Your task to perform on an android device: Play the last video I watched on Youtube Image 0: 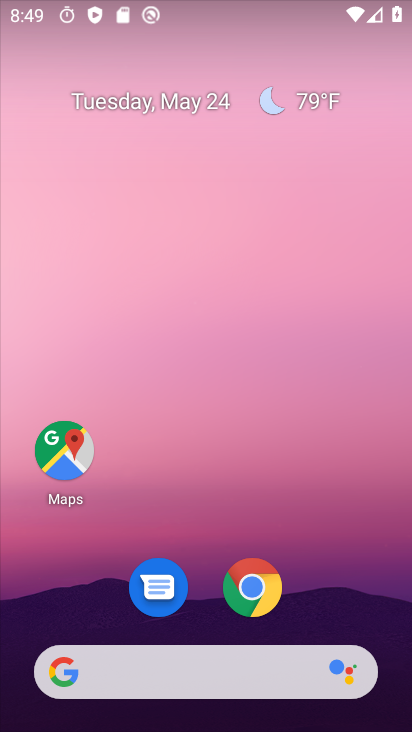
Step 0: drag from (325, 595) to (232, 145)
Your task to perform on an android device: Play the last video I watched on Youtube Image 1: 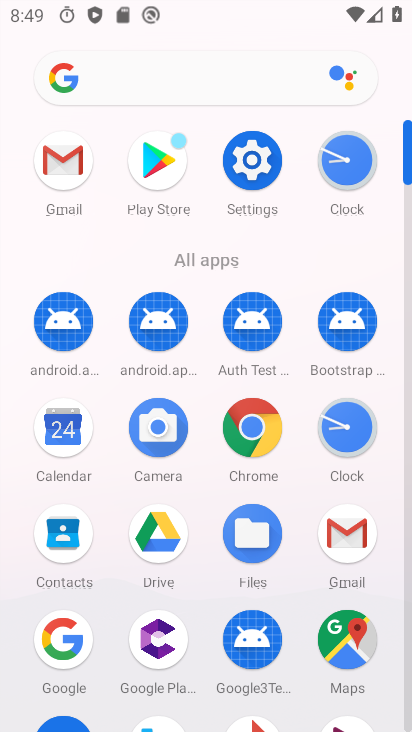
Step 1: drag from (198, 589) to (212, 327)
Your task to perform on an android device: Play the last video I watched on Youtube Image 2: 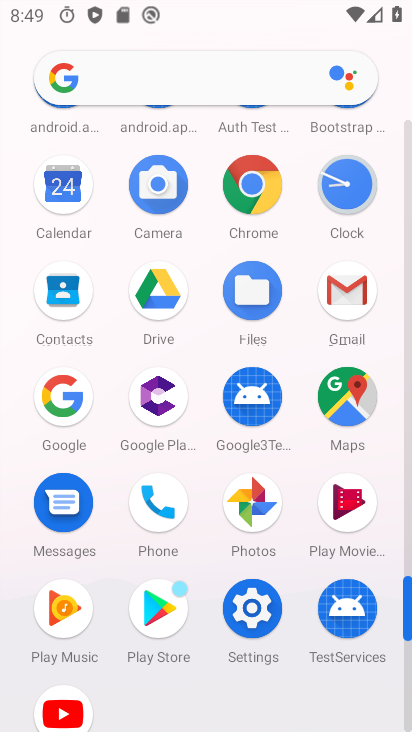
Step 2: drag from (202, 560) to (237, 373)
Your task to perform on an android device: Play the last video I watched on Youtube Image 3: 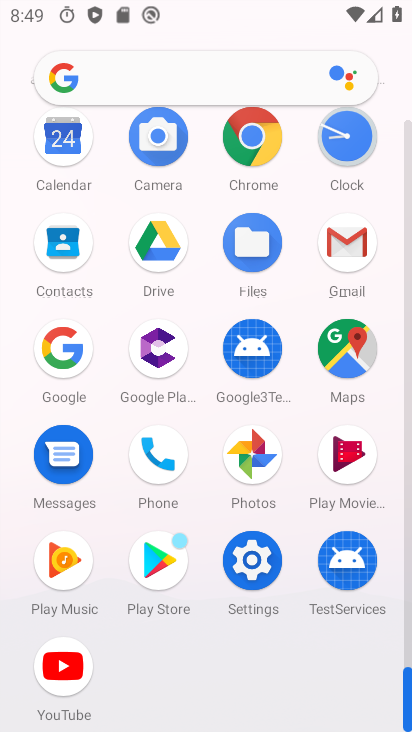
Step 3: click (63, 668)
Your task to perform on an android device: Play the last video I watched on Youtube Image 4: 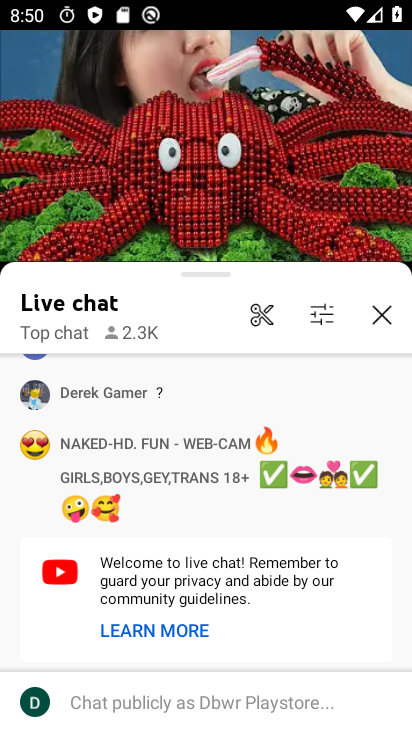
Step 4: click (189, 141)
Your task to perform on an android device: Play the last video I watched on Youtube Image 5: 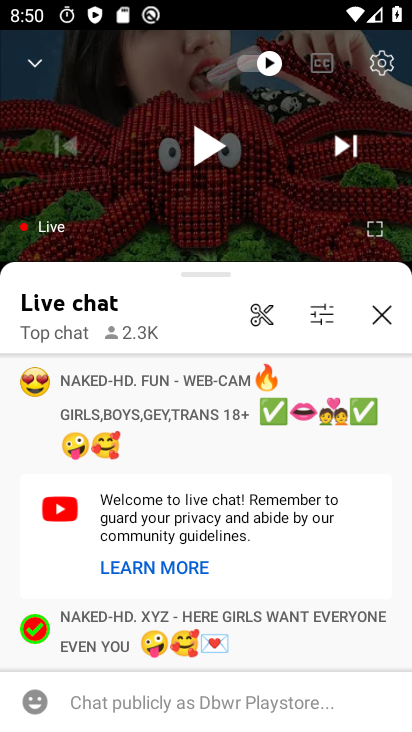
Step 5: click (202, 143)
Your task to perform on an android device: Play the last video I watched on Youtube Image 6: 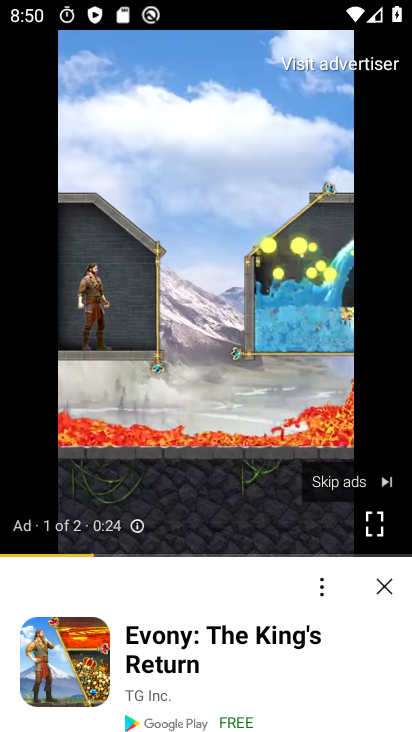
Step 6: click (367, 482)
Your task to perform on an android device: Play the last video I watched on Youtube Image 7: 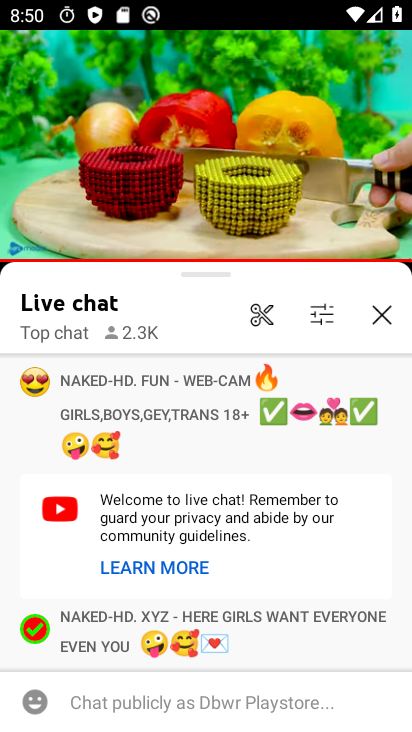
Step 7: click (237, 145)
Your task to perform on an android device: Play the last video I watched on Youtube Image 8: 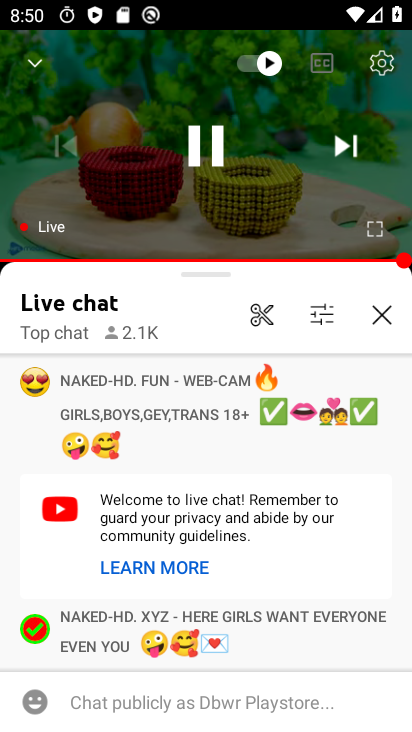
Step 8: click (237, 145)
Your task to perform on an android device: Play the last video I watched on Youtube Image 9: 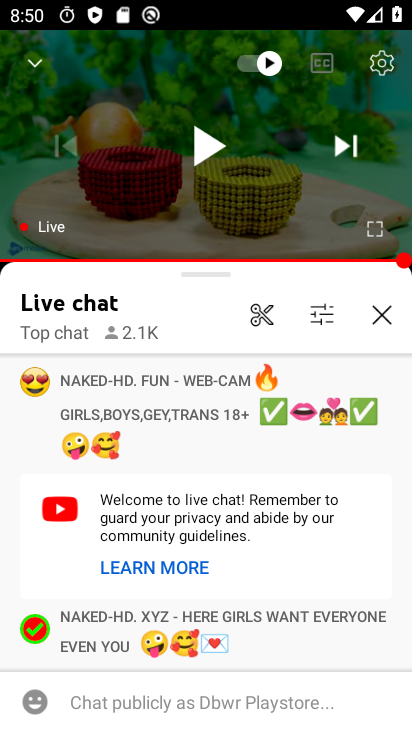
Step 9: task complete